Your task to perform on an android device: turn on translation in the chrome app Image 0: 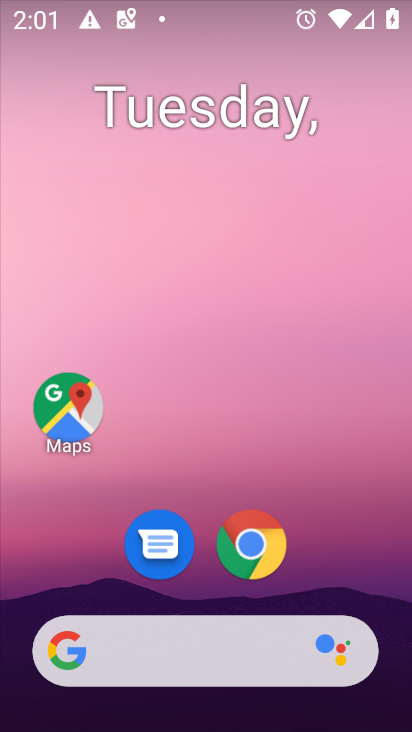
Step 0: drag from (343, 548) to (258, 73)
Your task to perform on an android device: turn on translation in the chrome app Image 1: 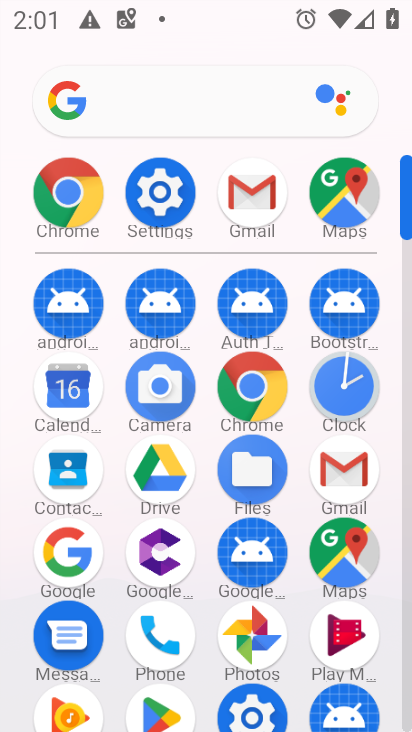
Step 1: click (252, 395)
Your task to perform on an android device: turn on translation in the chrome app Image 2: 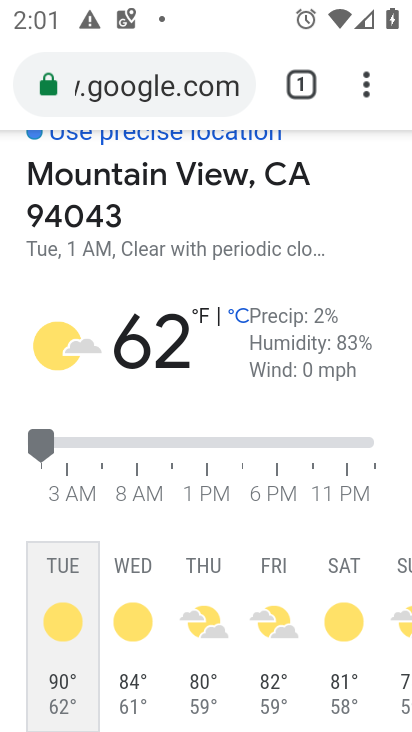
Step 2: drag from (372, 69) to (162, 600)
Your task to perform on an android device: turn on translation in the chrome app Image 3: 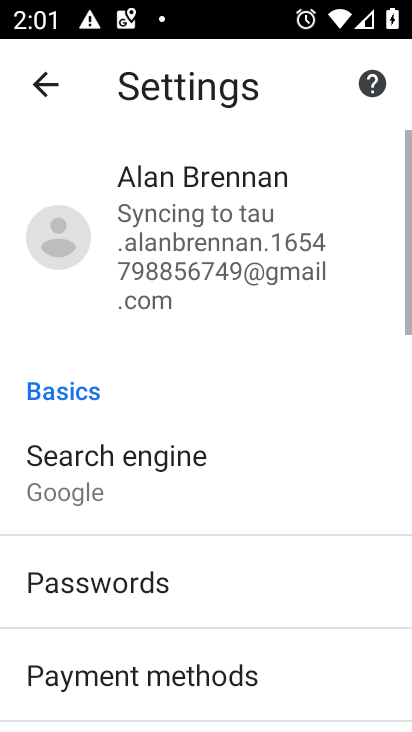
Step 3: drag from (278, 454) to (315, 119)
Your task to perform on an android device: turn on translation in the chrome app Image 4: 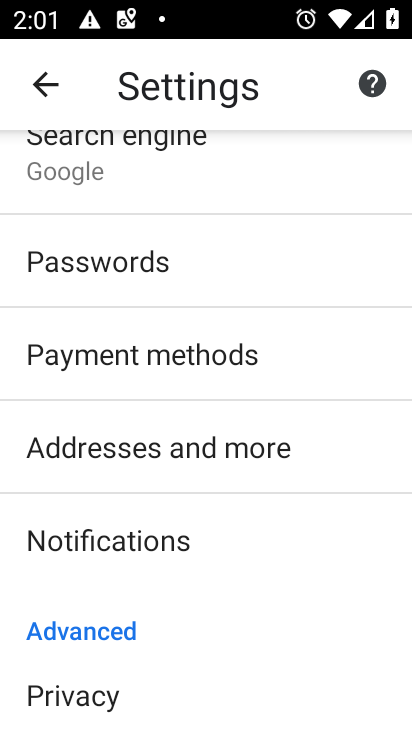
Step 4: drag from (213, 583) to (293, 211)
Your task to perform on an android device: turn on translation in the chrome app Image 5: 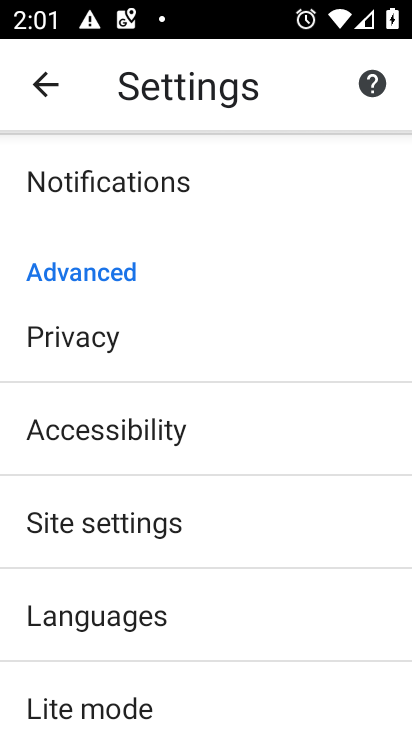
Step 5: drag from (217, 595) to (243, 283)
Your task to perform on an android device: turn on translation in the chrome app Image 6: 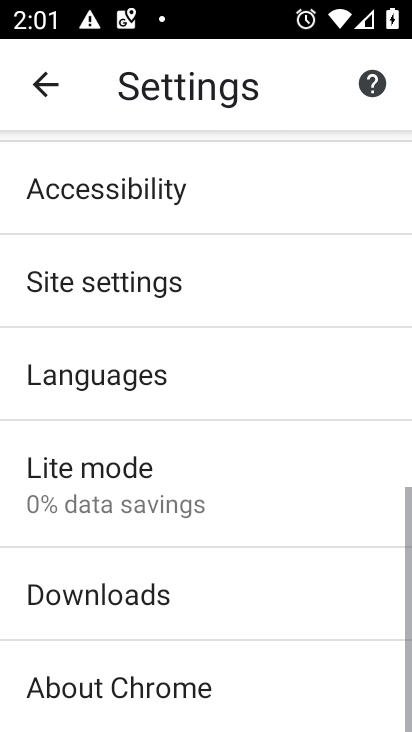
Step 6: click (130, 393)
Your task to perform on an android device: turn on translation in the chrome app Image 7: 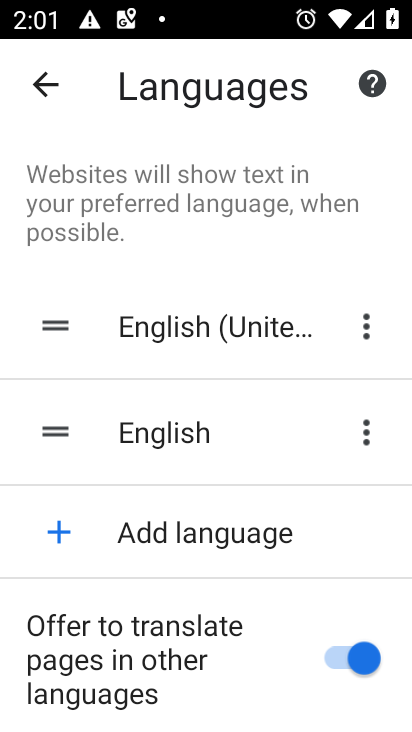
Step 7: task complete